Your task to perform on an android device: open app "Yahoo Mail" (install if not already installed) and go to login screen Image 0: 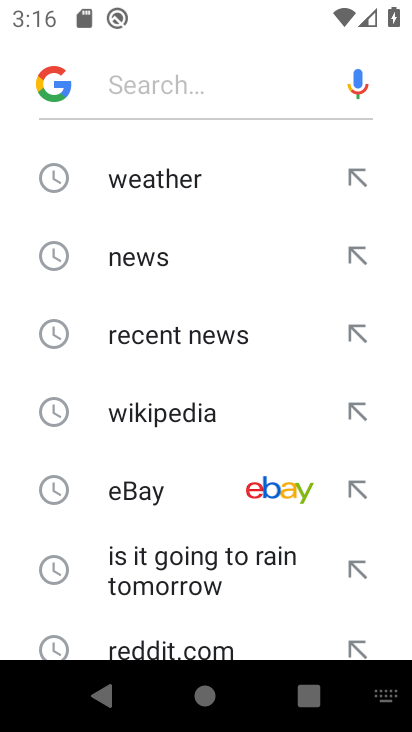
Step 0: press home button
Your task to perform on an android device: open app "Yahoo Mail" (install if not already installed) and go to login screen Image 1: 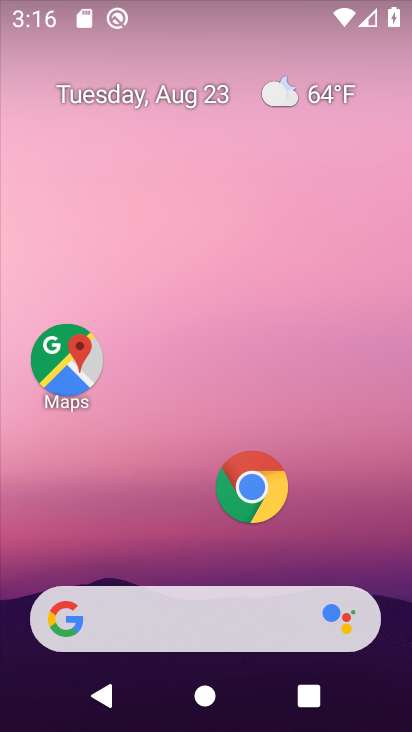
Step 1: drag from (134, 538) to (175, 142)
Your task to perform on an android device: open app "Yahoo Mail" (install if not already installed) and go to login screen Image 2: 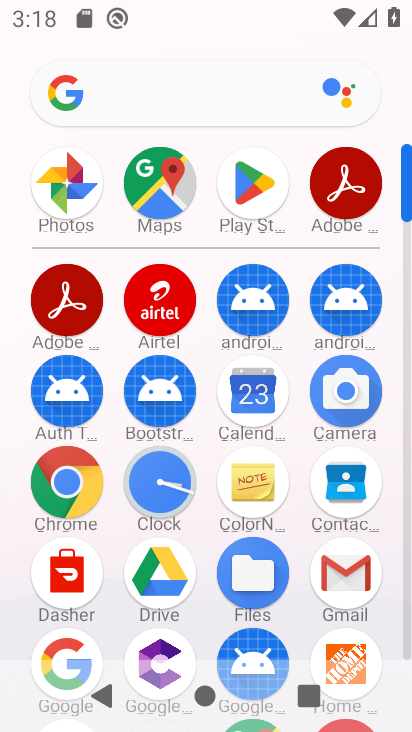
Step 2: click (229, 175)
Your task to perform on an android device: open app "Yahoo Mail" (install if not already installed) and go to login screen Image 3: 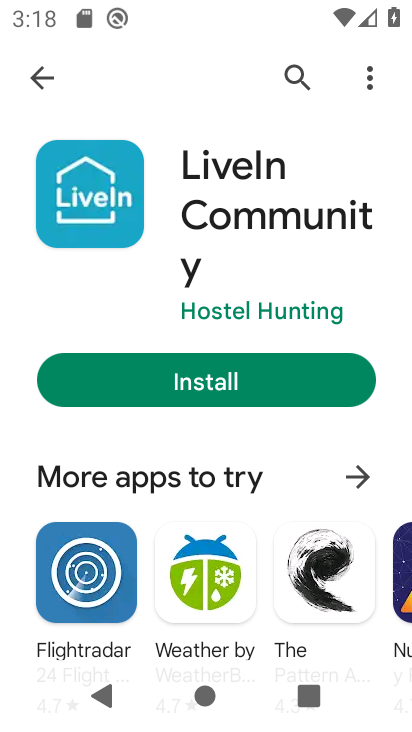
Step 3: click (50, 67)
Your task to perform on an android device: open app "Yahoo Mail" (install if not already installed) and go to login screen Image 4: 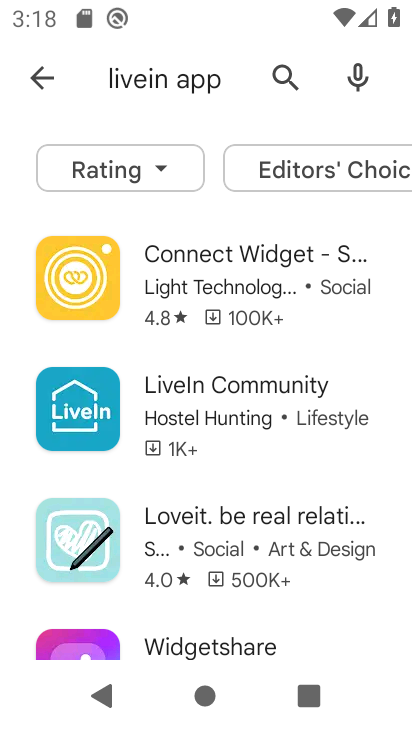
Step 4: click (23, 71)
Your task to perform on an android device: open app "Yahoo Mail" (install if not already installed) and go to login screen Image 5: 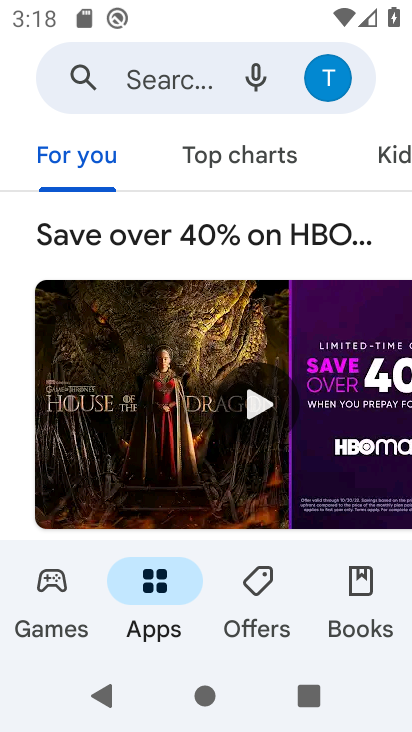
Step 5: click (138, 67)
Your task to perform on an android device: open app "Yahoo Mail" (install if not already installed) and go to login screen Image 6: 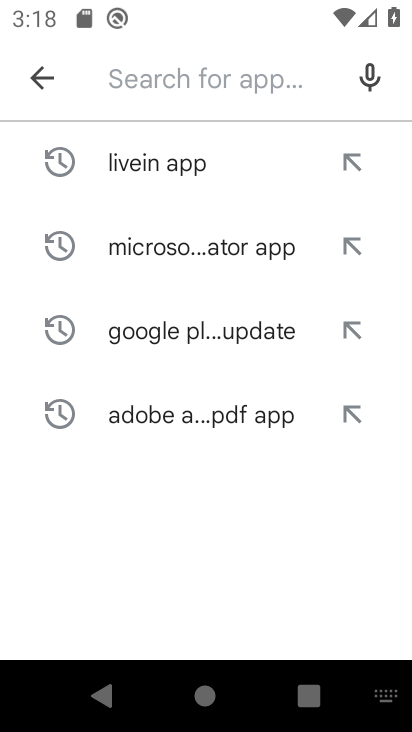
Step 6: type "Yahoo Mail "
Your task to perform on an android device: open app "Yahoo Mail" (install if not already installed) and go to login screen Image 7: 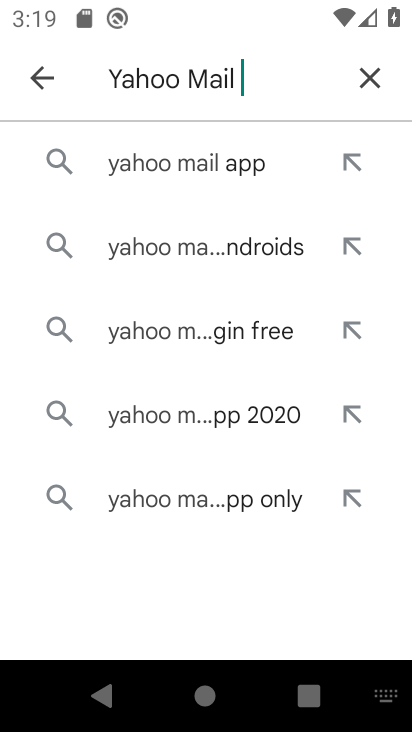
Step 7: click (273, 175)
Your task to perform on an android device: open app "Yahoo Mail" (install if not already installed) and go to login screen Image 8: 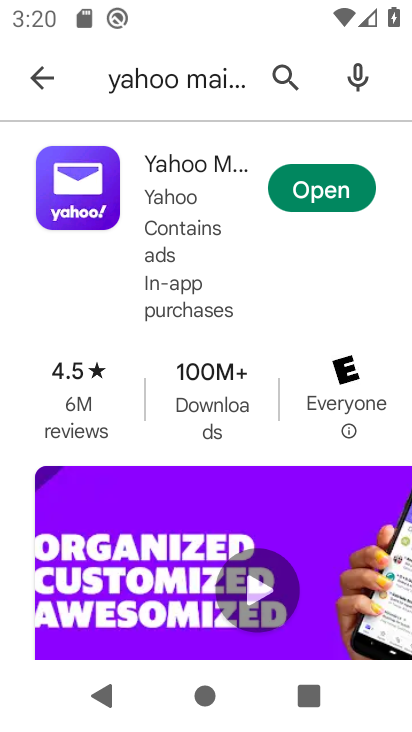
Step 8: task complete